Your task to perform on an android device: snooze an email in the gmail app Image 0: 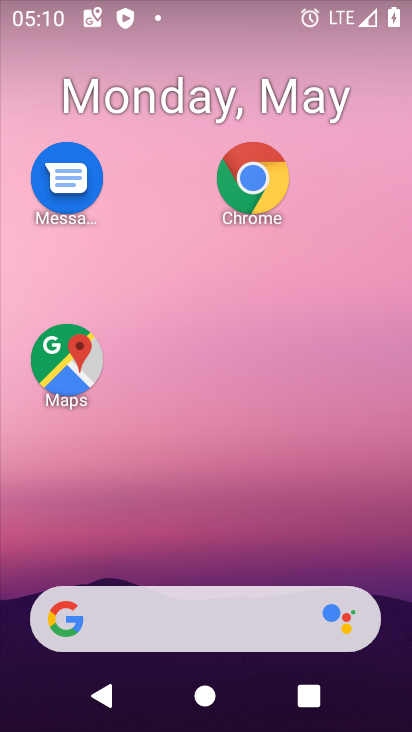
Step 0: drag from (165, 549) to (208, 99)
Your task to perform on an android device: snooze an email in the gmail app Image 1: 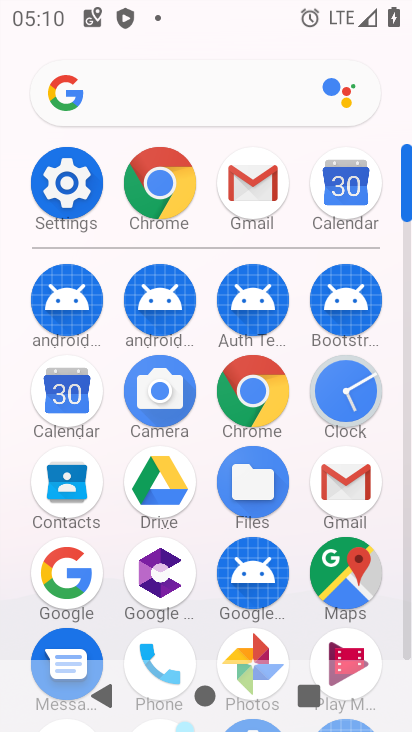
Step 1: click (254, 189)
Your task to perform on an android device: snooze an email in the gmail app Image 2: 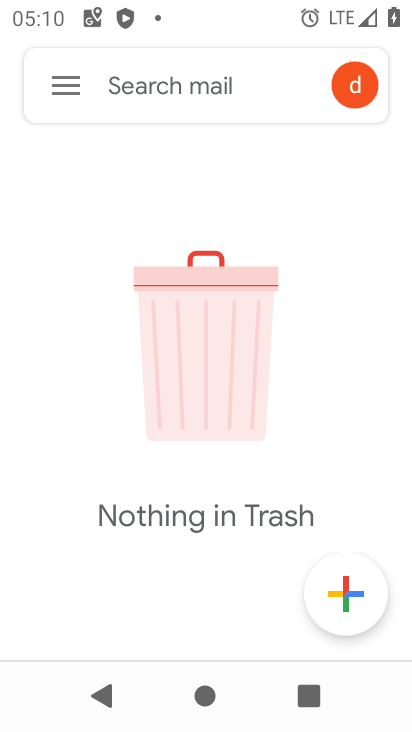
Step 2: click (67, 90)
Your task to perform on an android device: snooze an email in the gmail app Image 3: 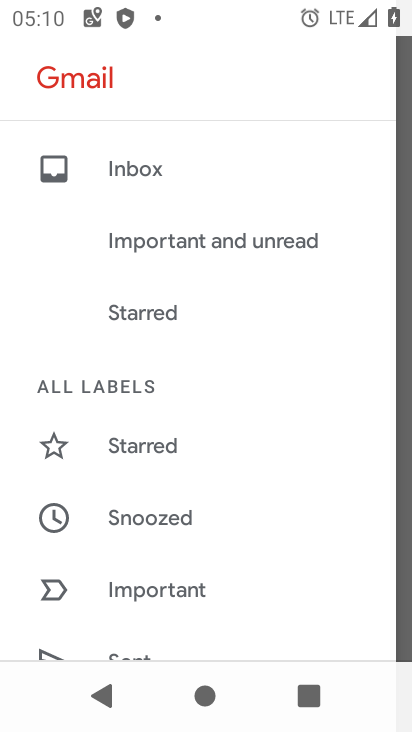
Step 3: drag from (208, 623) to (190, 83)
Your task to perform on an android device: snooze an email in the gmail app Image 4: 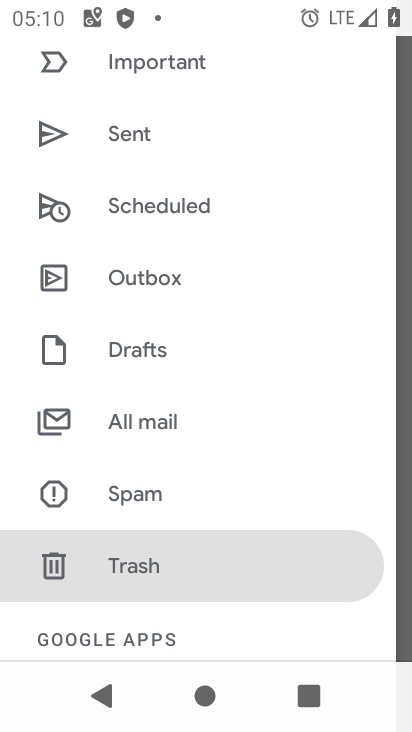
Step 4: drag from (171, 609) to (221, 88)
Your task to perform on an android device: snooze an email in the gmail app Image 5: 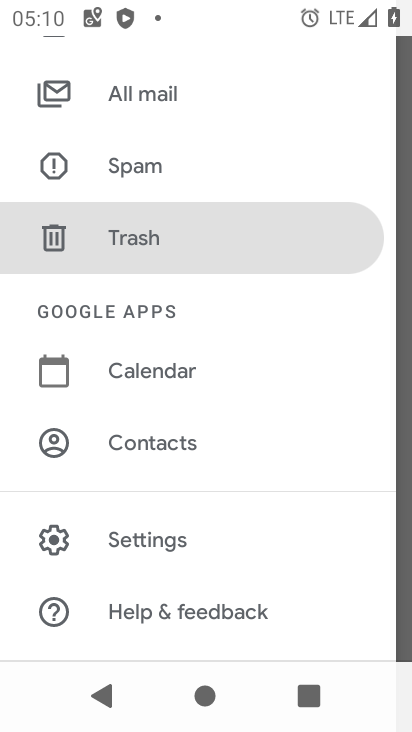
Step 5: click (124, 96)
Your task to perform on an android device: snooze an email in the gmail app Image 6: 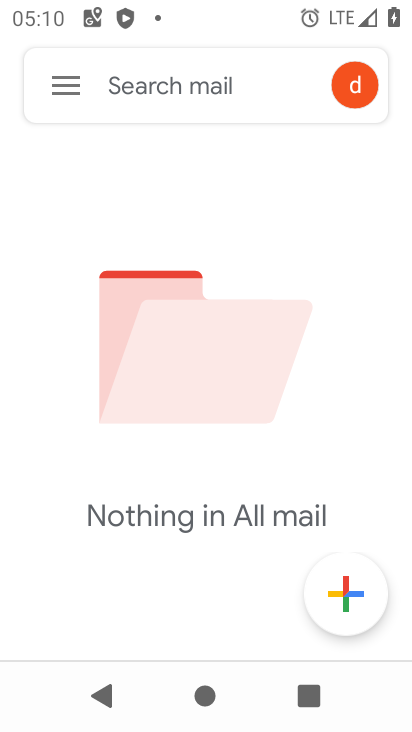
Step 6: task complete